Your task to perform on an android device: Search for seafood restaurants on Google Maps Image 0: 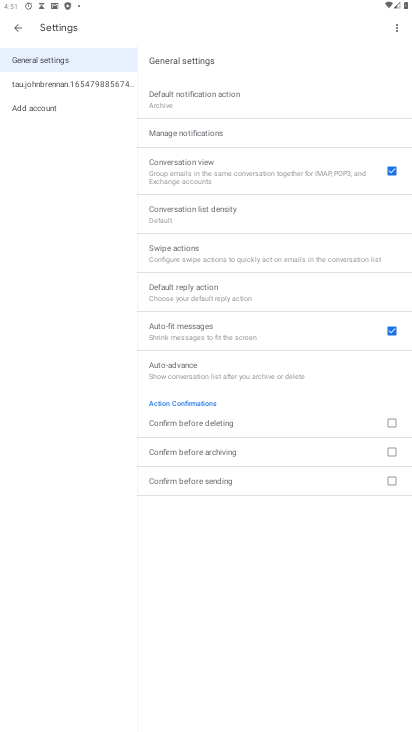
Step 0: press back button
Your task to perform on an android device: Search for seafood restaurants on Google Maps Image 1: 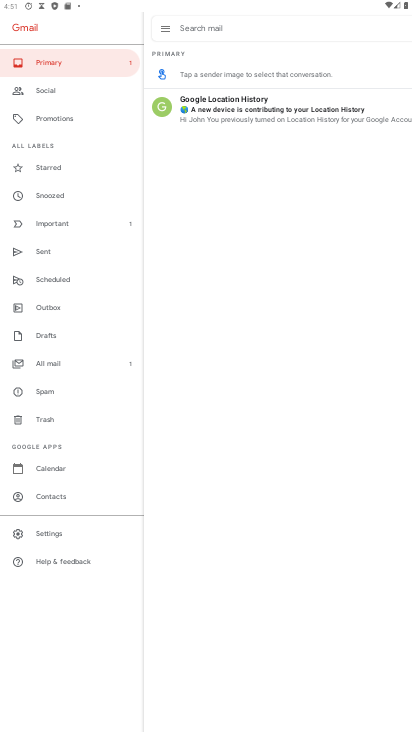
Step 1: press home button
Your task to perform on an android device: Search for seafood restaurants on Google Maps Image 2: 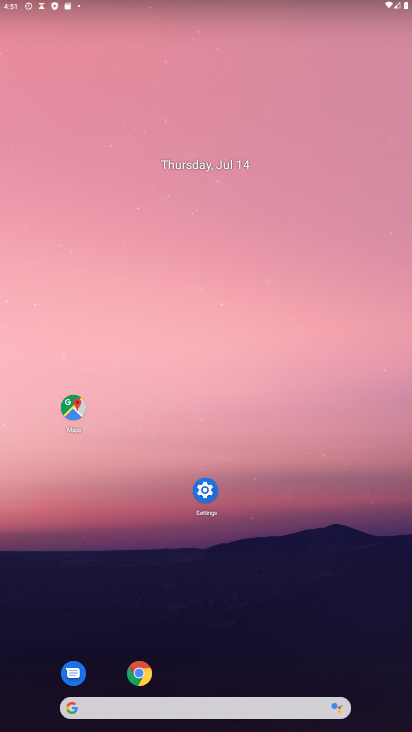
Step 2: drag from (284, 676) to (130, 110)
Your task to perform on an android device: Search for seafood restaurants on Google Maps Image 3: 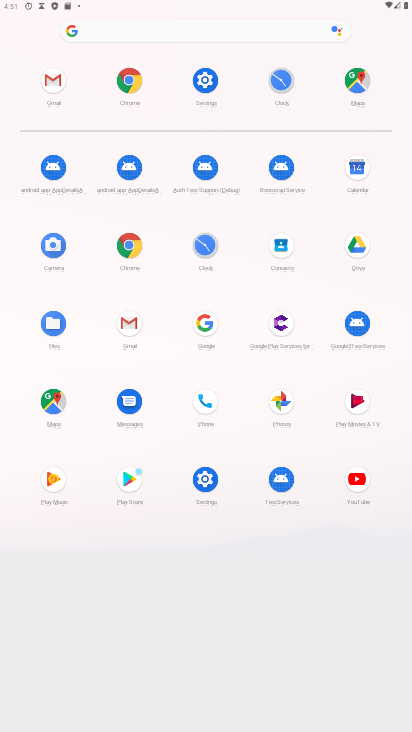
Step 3: click (49, 403)
Your task to perform on an android device: Search for seafood restaurants on Google Maps Image 4: 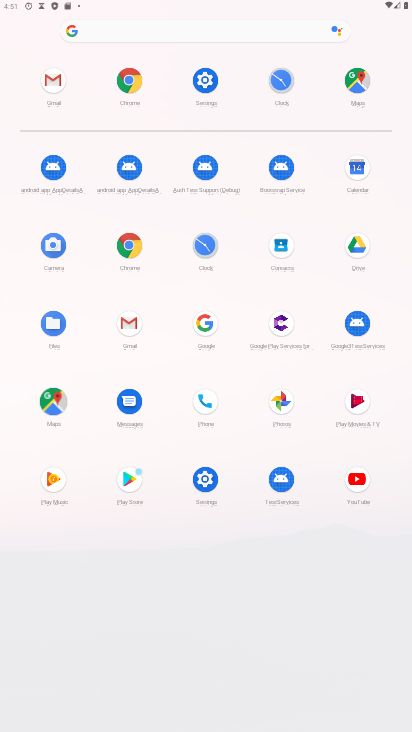
Step 4: click (49, 405)
Your task to perform on an android device: Search for seafood restaurants on Google Maps Image 5: 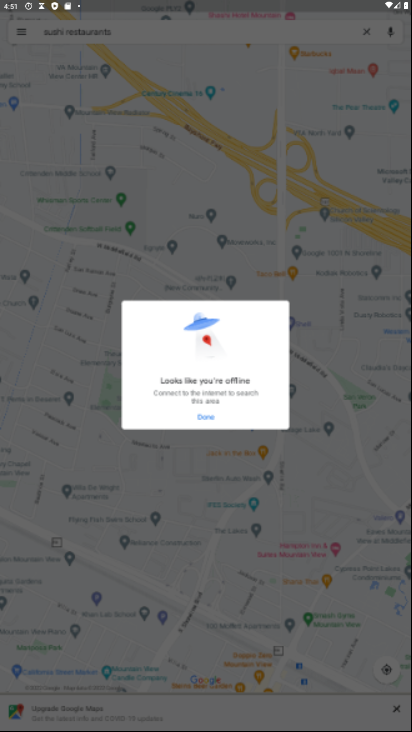
Step 5: click (49, 405)
Your task to perform on an android device: Search for seafood restaurants on Google Maps Image 6: 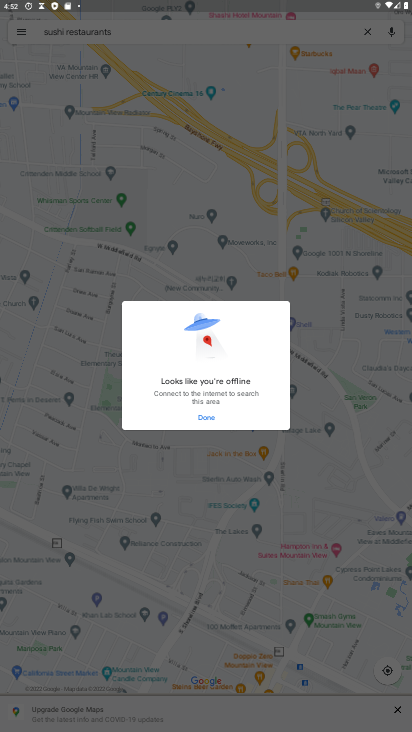
Step 6: click (212, 413)
Your task to perform on an android device: Search for seafood restaurants on Google Maps Image 7: 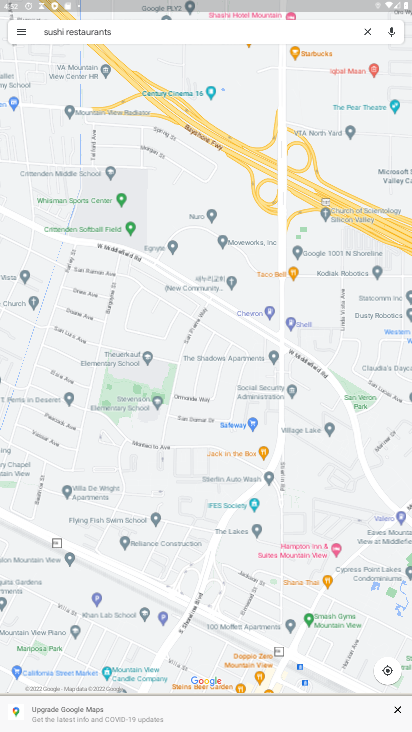
Step 7: click (78, 43)
Your task to perform on an android device: Search for seafood restaurants on Google Maps Image 8: 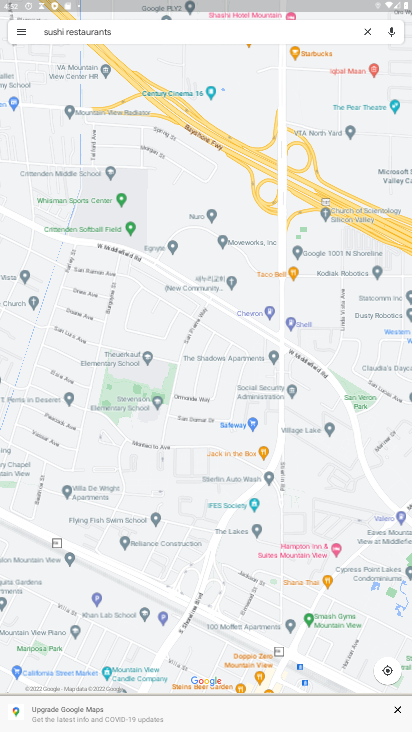
Step 8: click (73, 29)
Your task to perform on an android device: Search for seafood restaurants on Google Maps Image 9: 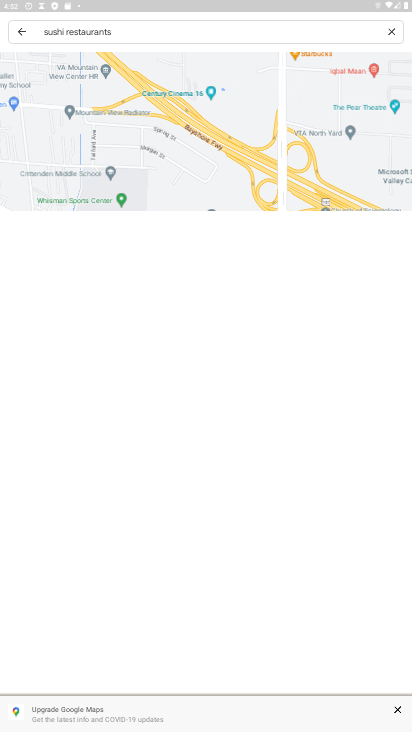
Step 9: click (73, 29)
Your task to perform on an android device: Search for seafood restaurants on Google Maps Image 10: 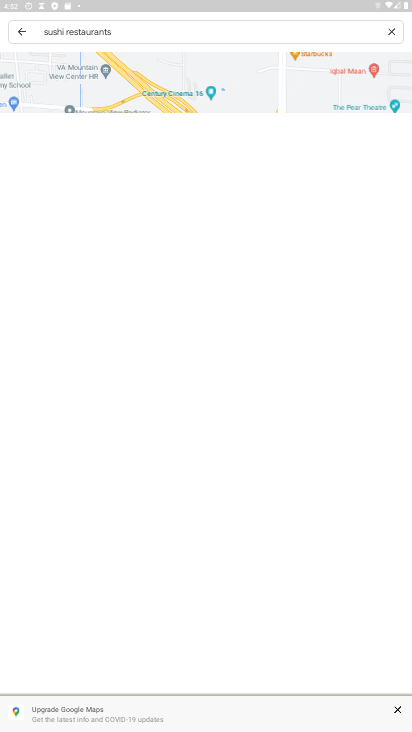
Step 10: click (76, 28)
Your task to perform on an android device: Search for seafood restaurants on Google Maps Image 11: 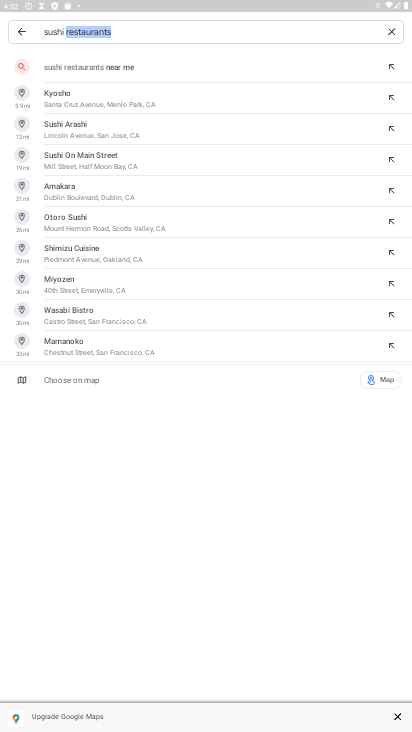
Step 11: click (77, 27)
Your task to perform on an android device: Search for seafood restaurants on Google Maps Image 12: 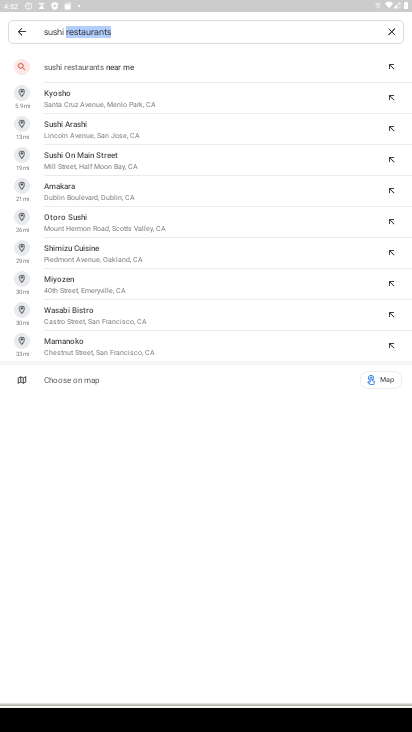
Step 12: click (78, 27)
Your task to perform on an android device: Search for seafood restaurants on Google Maps Image 13: 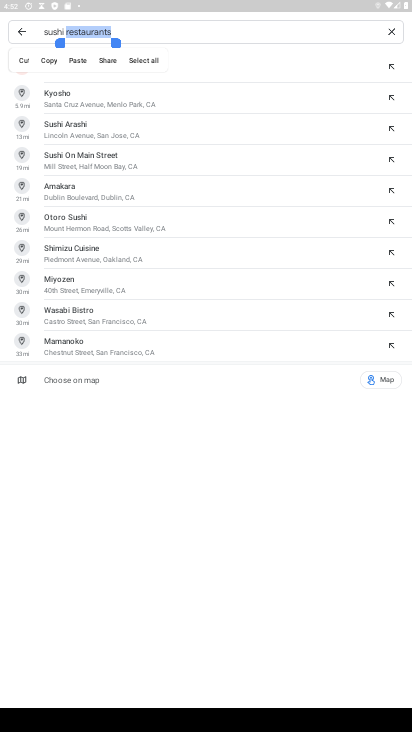
Step 13: click (391, 29)
Your task to perform on an android device: Search for seafood restaurants on Google Maps Image 14: 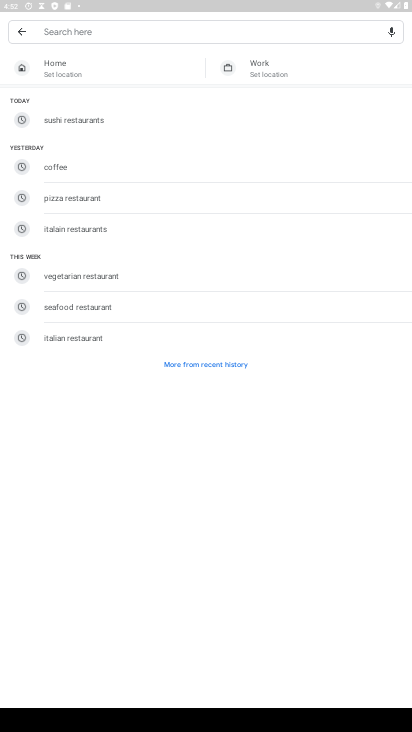
Step 14: type "seafood restaurants"
Your task to perform on an android device: Search for seafood restaurants on Google Maps Image 15: 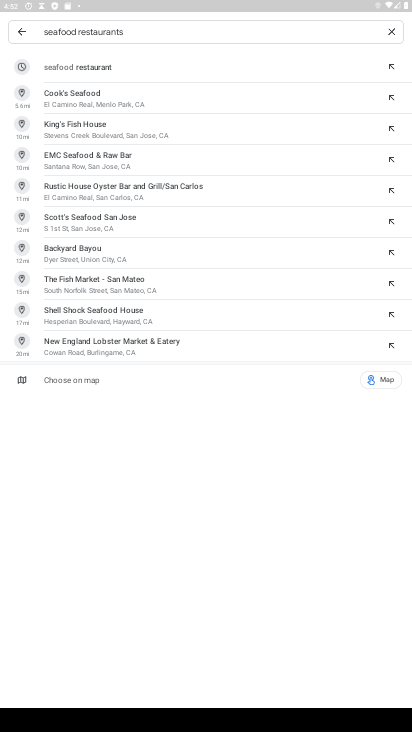
Step 15: click (65, 62)
Your task to perform on an android device: Search for seafood restaurants on Google Maps Image 16: 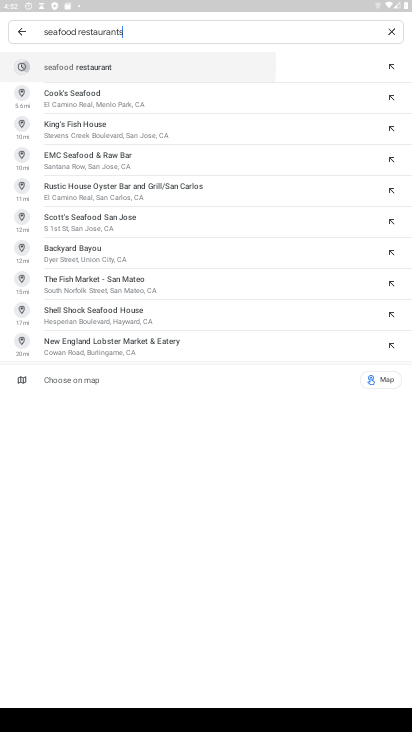
Step 16: click (65, 62)
Your task to perform on an android device: Search for seafood restaurants on Google Maps Image 17: 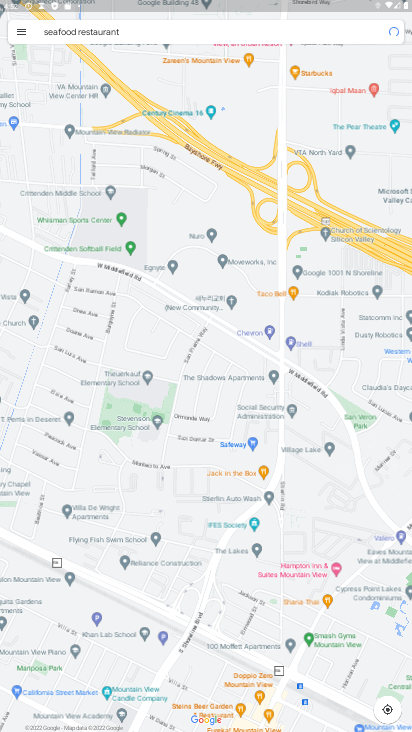
Step 17: task complete